Your task to perform on an android device: Clear the cart on bestbuy.com. Image 0: 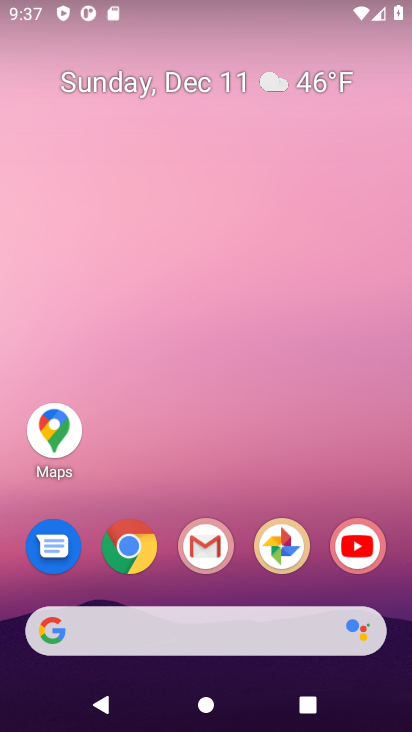
Step 0: click (136, 541)
Your task to perform on an android device: Clear the cart on bestbuy.com. Image 1: 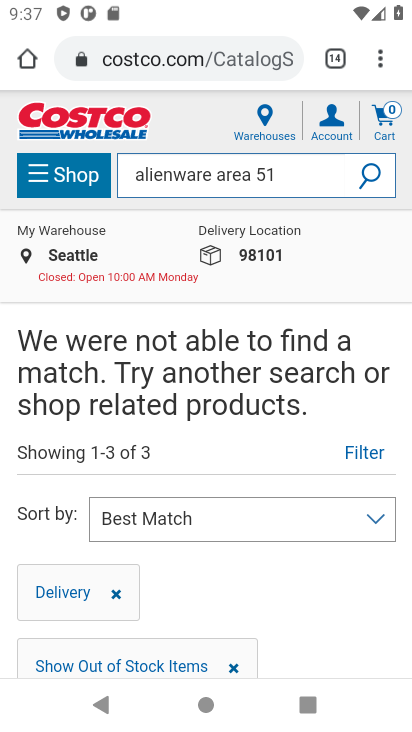
Step 1: click (176, 66)
Your task to perform on an android device: Clear the cart on bestbuy.com. Image 2: 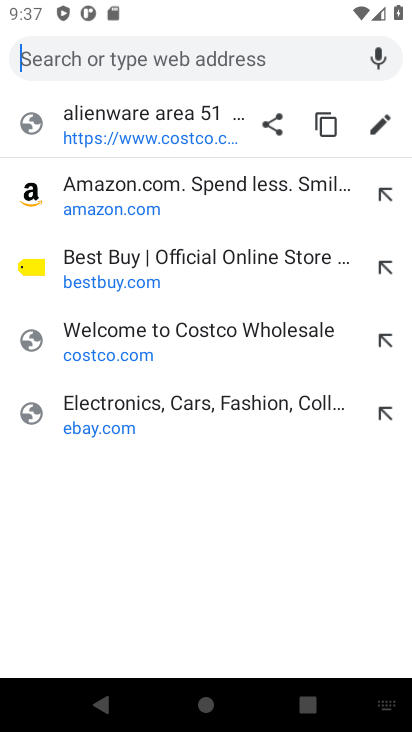
Step 2: click (103, 259)
Your task to perform on an android device: Clear the cart on bestbuy.com. Image 3: 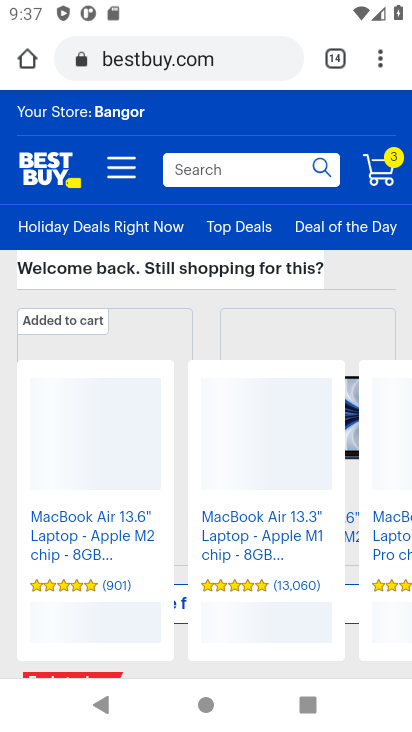
Step 3: click (376, 175)
Your task to perform on an android device: Clear the cart on bestbuy.com. Image 4: 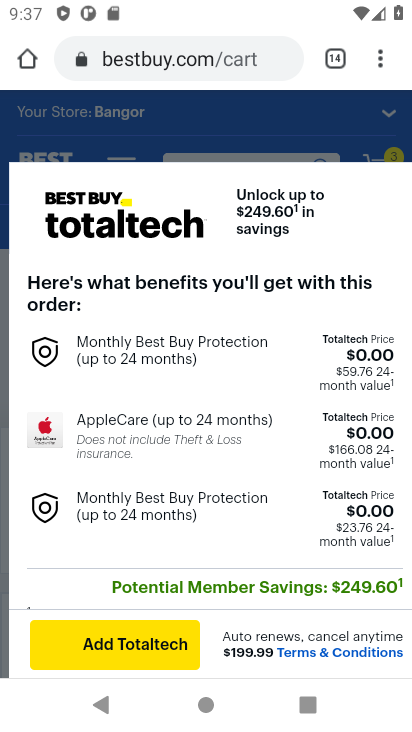
Step 4: drag from (217, 520) to (213, 559)
Your task to perform on an android device: Clear the cart on bestbuy.com. Image 5: 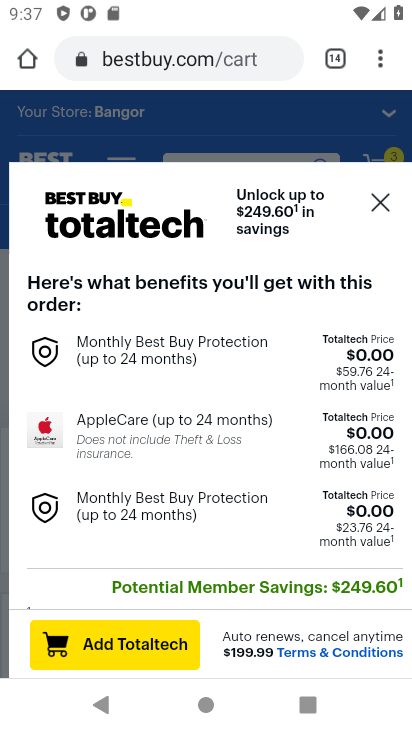
Step 5: click (378, 208)
Your task to perform on an android device: Clear the cart on bestbuy.com. Image 6: 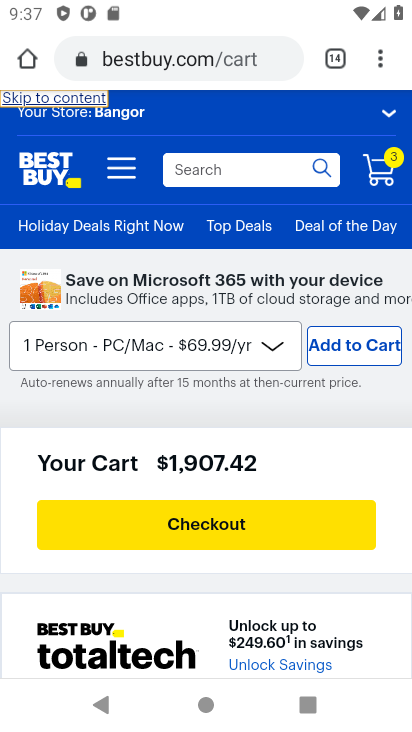
Step 6: click (208, 217)
Your task to perform on an android device: Clear the cart on bestbuy.com. Image 7: 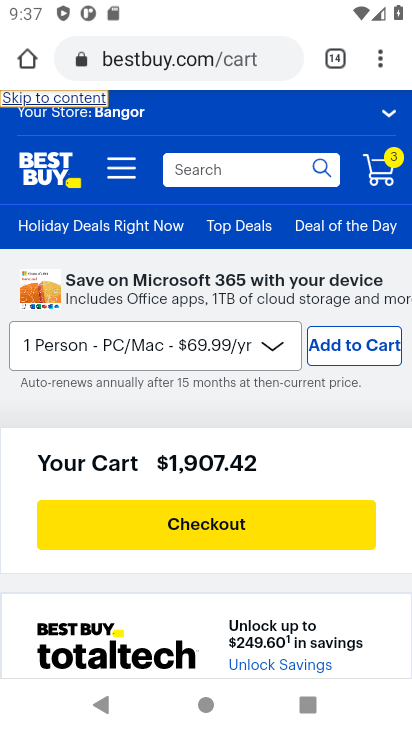
Step 7: drag from (288, 506) to (338, 228)
Your task to perform on an android device: Clear the cart on bestbuy.com. Image 8: 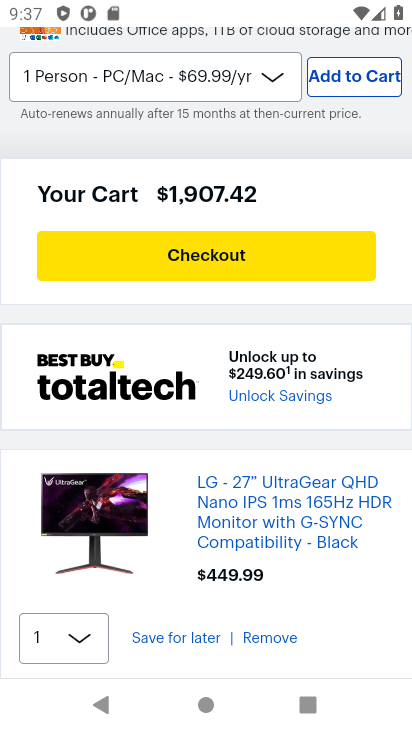
Step 8: drag from (266, 480) to (272, 257)
Your task to perform on an android device: Clear the cart on bestbuy.com. Image 9: 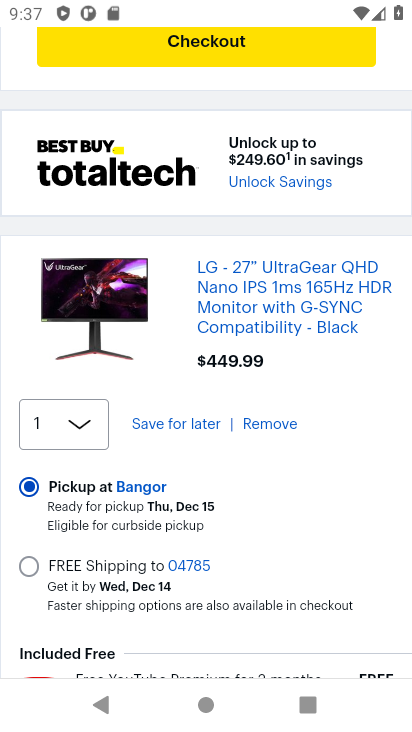
Step 9: click (265, 426)
Your task to perform on an android device: Clear the cart on bestbuy.com. Image 10: 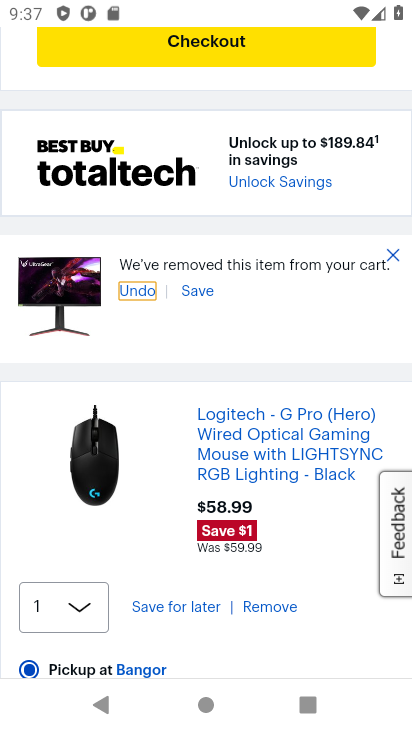
Step 10: click (280, 611)
Your task to perform on an android device: Clear the cart on bestbuy.com. Image 11: 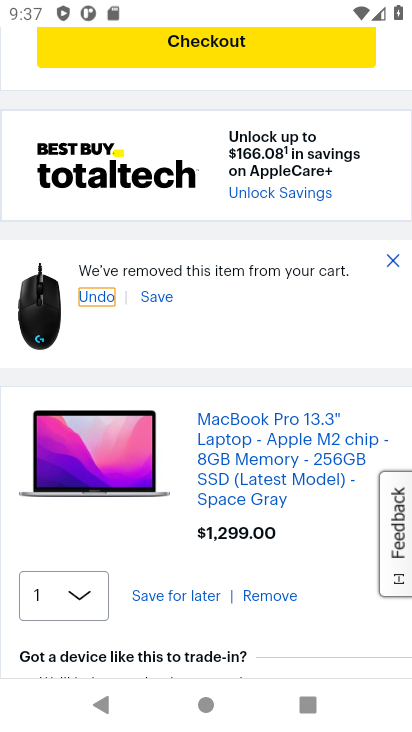
Step 11: click (272, 601)
Your task to perform on an android device: Clear the cart on bestbuy.com. Image 12: 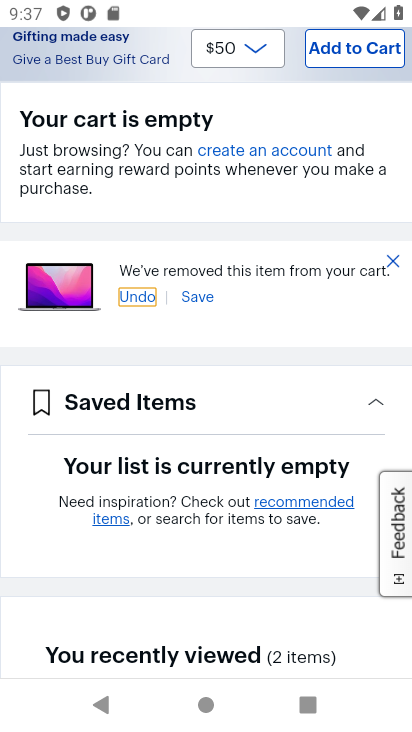
Step 12: task complete